Your task to perform on an android device: create a new album in the google photos Image 0: 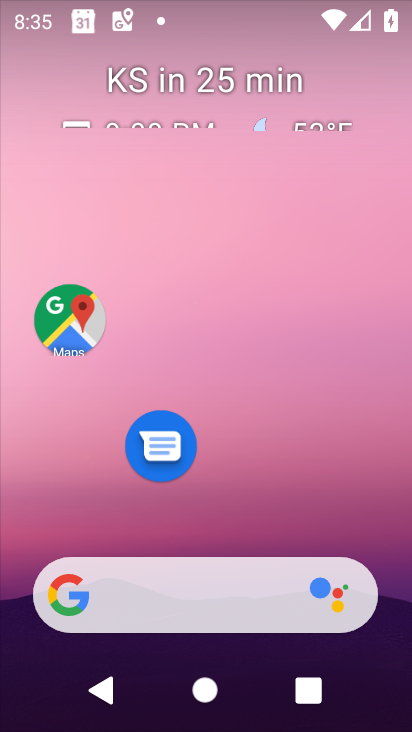
Step 0: drag from (170, 549) to (289, 59)
Your task to perform on an android device: create a new album in the google photos Image 1: 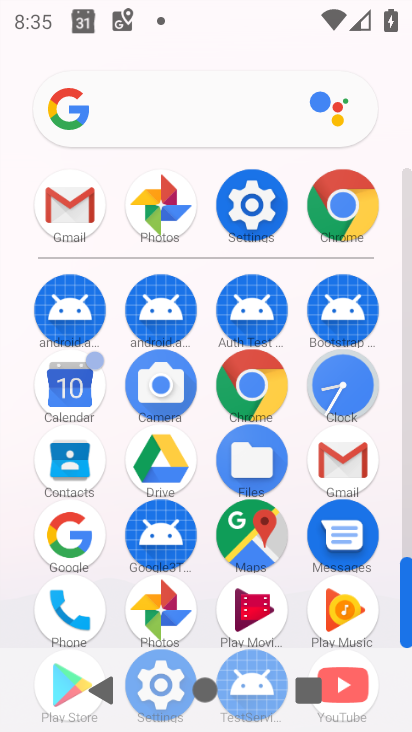
Step 1: click (174, 612)
Your task to perform on an android device: create a new album in the google photos Image 2: 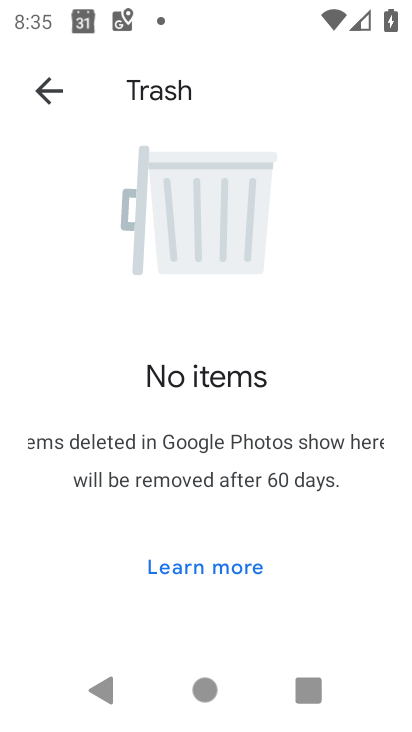
Step 2: click (42, 93)
Your task to perform on an android device: create a new album in the google photos Image 3: 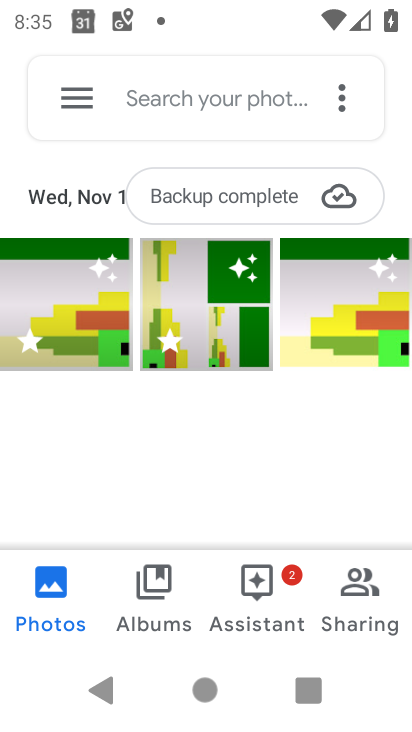
Step 3: click (73, 341)
Your task to perform on an android device: create a new album in the google photos Image 4: 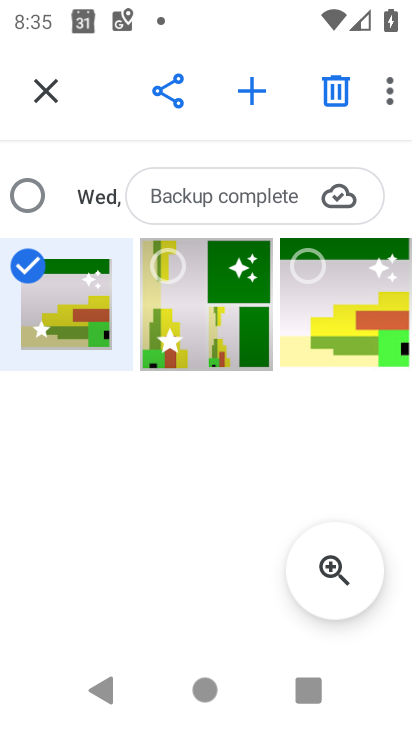
Step 4: click (248, 84)
Your task to perform on an android device: create a new album in the google photos Image 5: 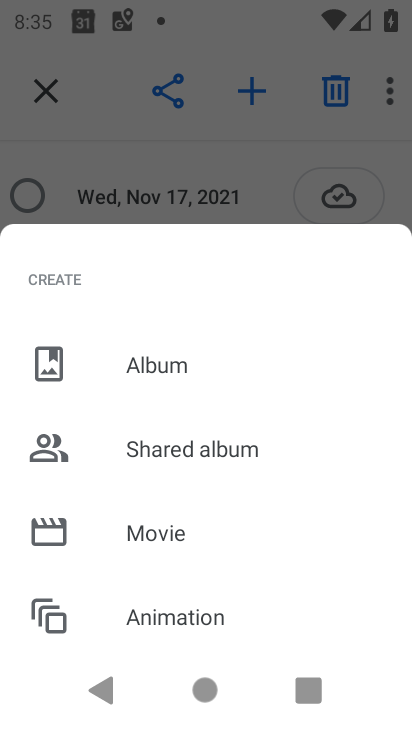
Step 5: click (152, 371)
Your task to perform on an android device: create a new album in the google photos Image 6: 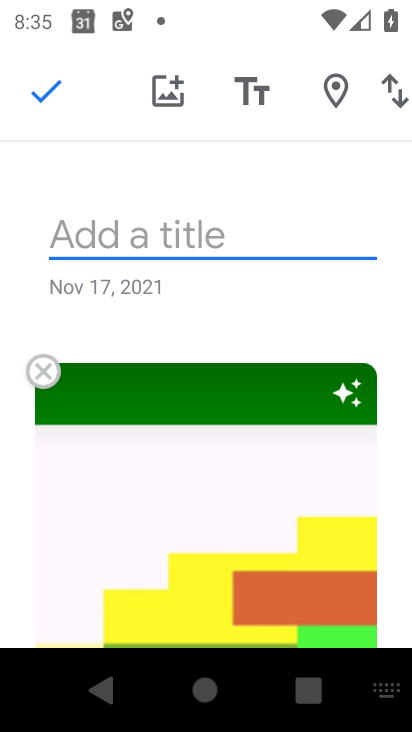
Step 6: type "hu"
Your task to perform on an android device: create a new album in the google photos Image 7: 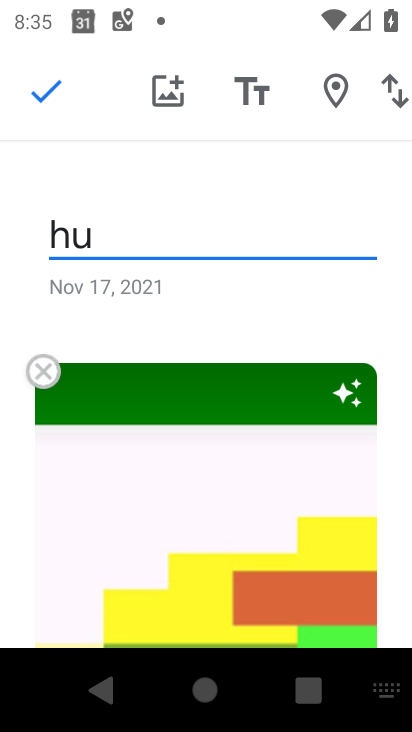
Step 7: click (39, 100)
Your task to perform on an android device: create a new album in the google photos Image 8: 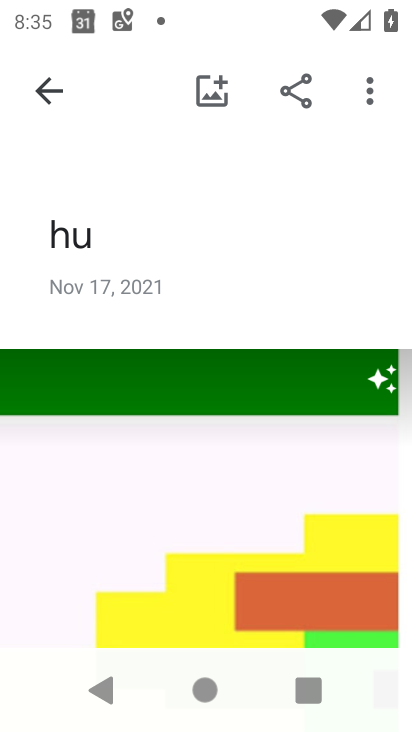
Step 8: task complete